Your task to perform on an android device: turn off improve location accuracy Image 0: 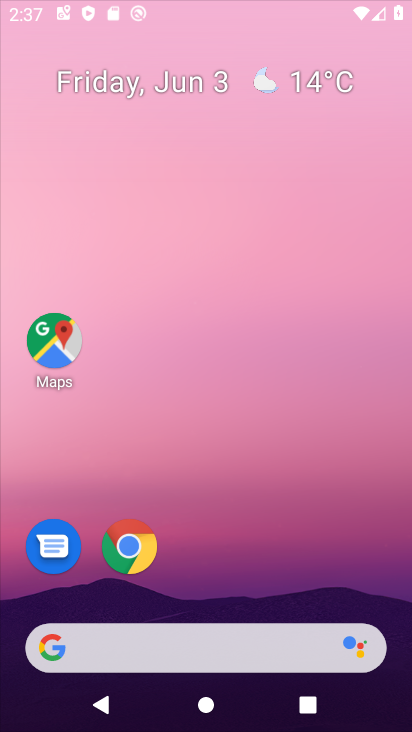
Step 0: drag from (250, 558) to (356, 52)
Your task to perform on an android device: turn off improve location accuracy Image 1: 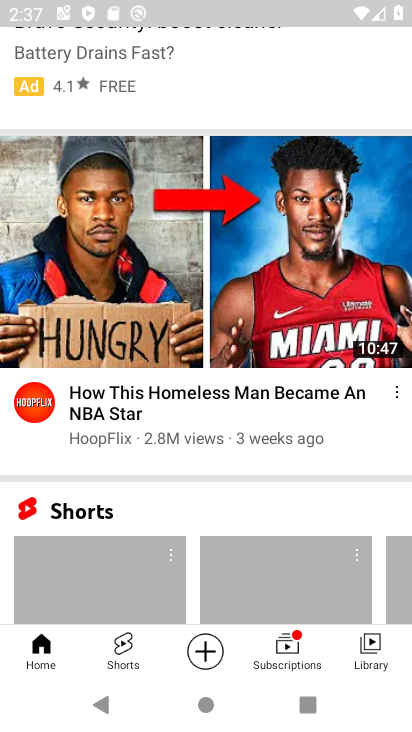
Step 1: press home button
Your task to perform on an android device: turn off improve location accuracy Image 2: 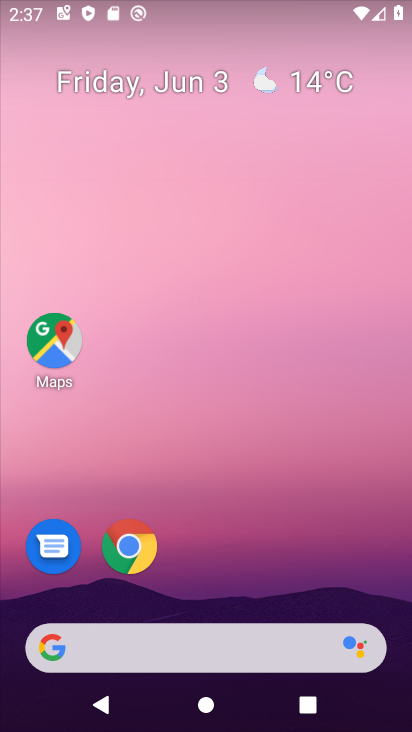
Step 2: drag from (334, 185) to (346, 90)
Your task to perform on an android device: turn off improve location accuracy Image 3: 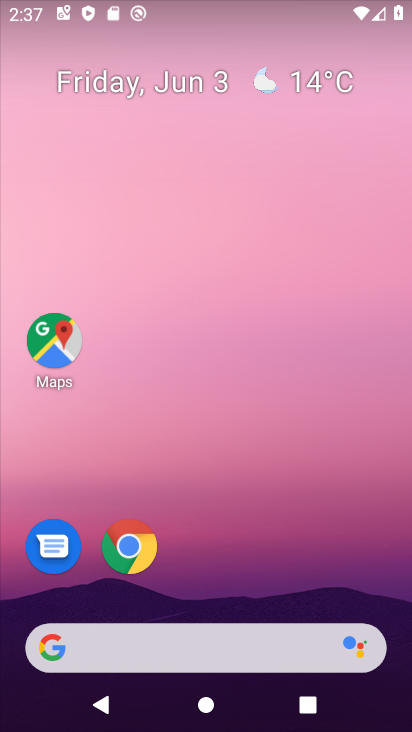
Step 3: drag from (298, 557) to (1, 17)
Your task to perform on an android device: turn off improve location accuracy Image 4: 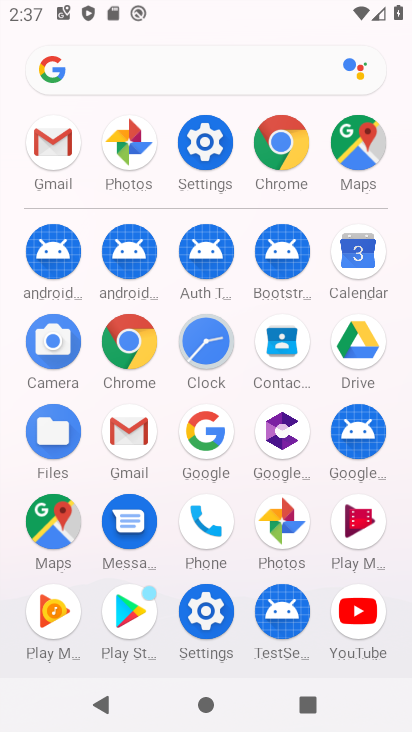
Step 4: click (211, 150)
Your task to perform on an android device: turn off improve location accuracy Image 5: 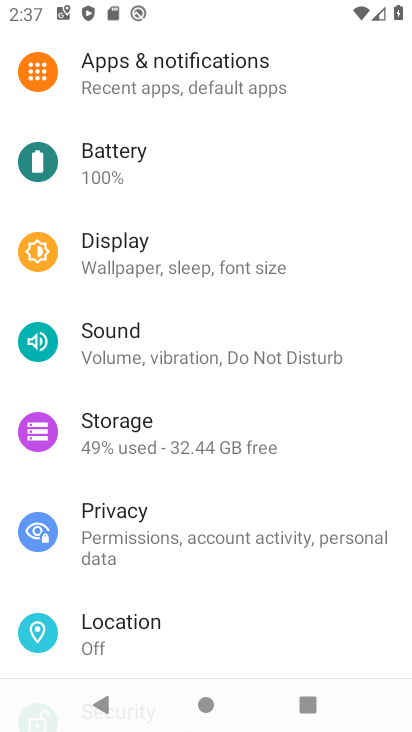
Step 5: click (169, 623)
Your task to perform on an android device: turn off improve location accuracy Image 6: 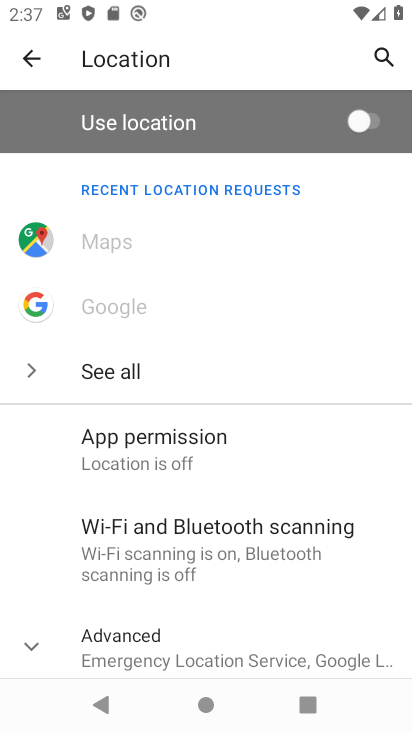
Step 6: drag from (173, 611) to (224, 323)
Your task to perform on an android device: turn off improve location accuracy Image 7: 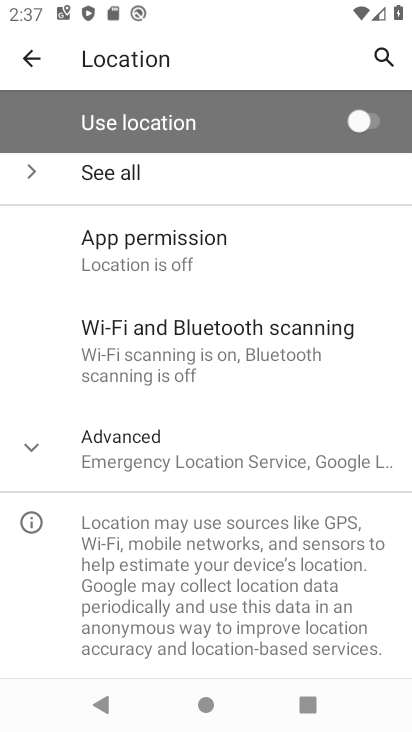
Step 7: click (155, 493)
Your task to perform on an android device: turn off improve location accuracy Image 8: 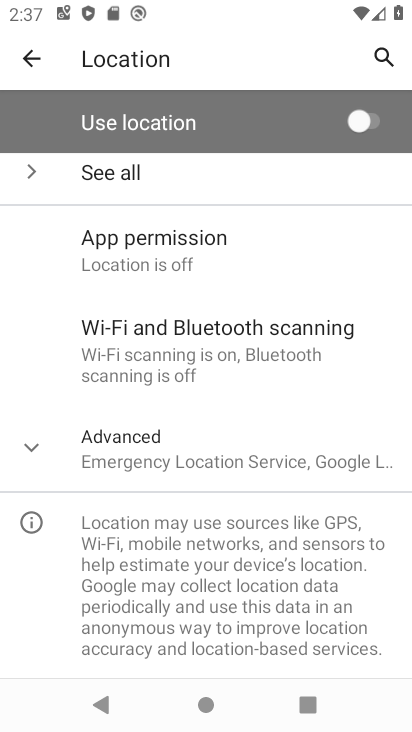
Step 8: click (167, 464)
Your task to perform on an android device: turn off improve location accuracy Image 9: 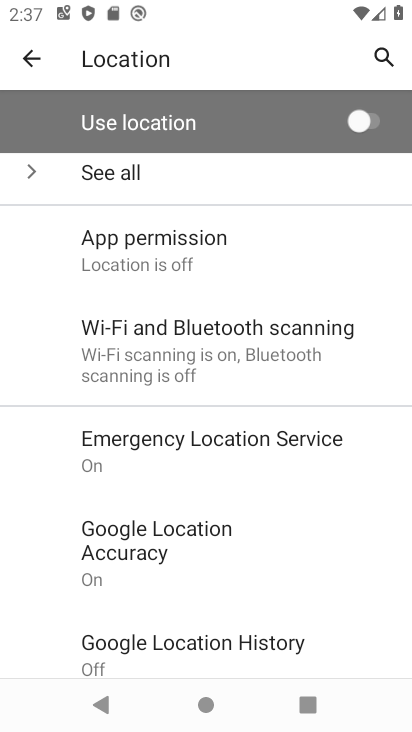
Step 9: click (159, 534)
Your task to perform on an android device: turn off improve location accuracy Image 10: 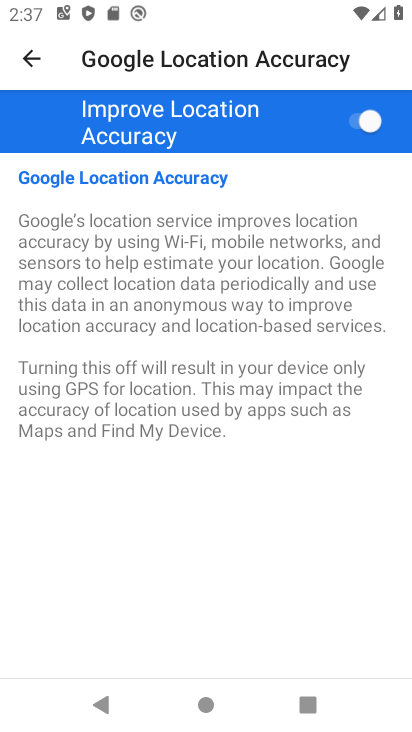
Step 10: click (374, 136)
Your task to perform on an android device: turn off improve location accuracy Image 11: 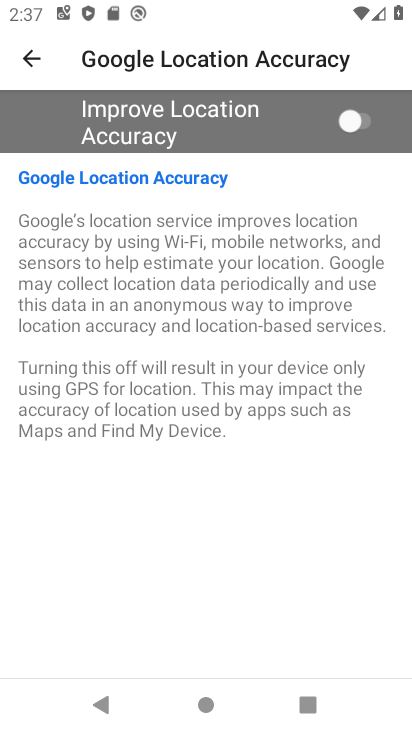
Step 11: task complete